Your task to perform on an android device: clear history in the chrome app Image 0: 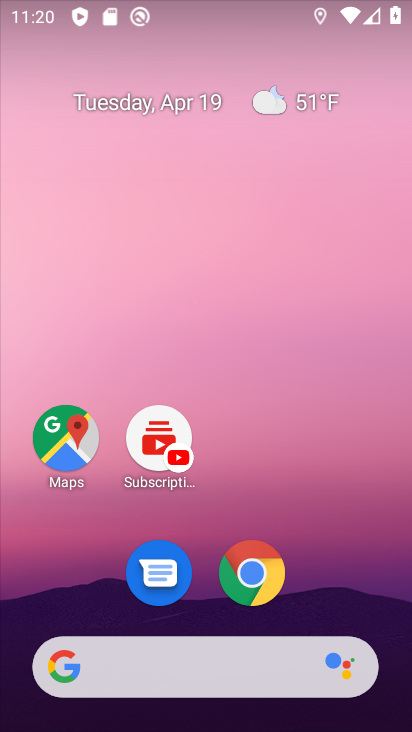
Step 0: click (252, 580)
Your task to perform on an android device: clear history in the chrome app Image 1: 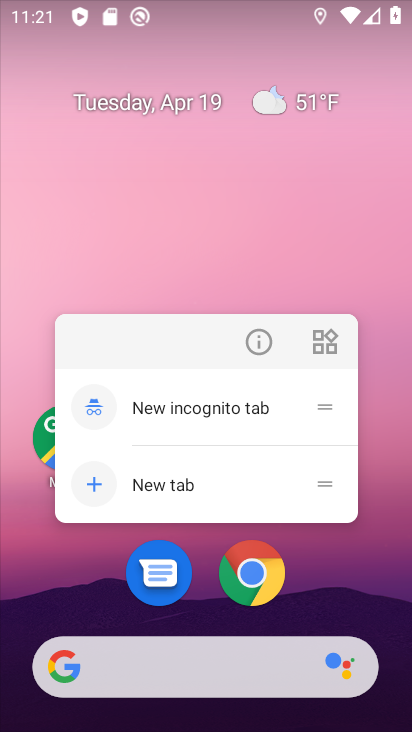
Step 1: click (252, 578)
Your task to perform on an android device: clear history in the chrome app Image 2: 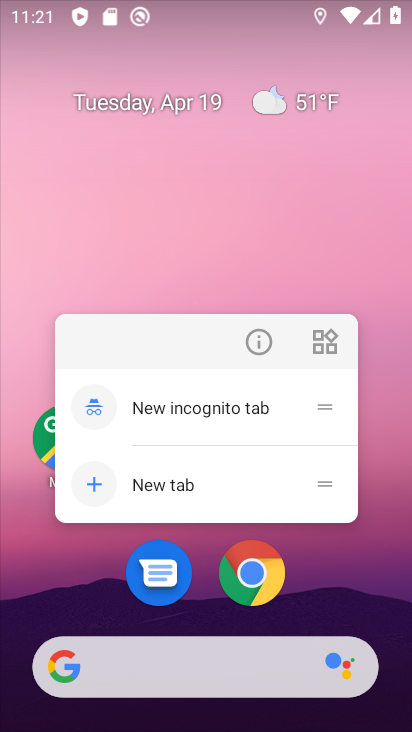
Step 2: click (252, 578)
Your task to perform on an android device: clear history in the chrome app Image 3: 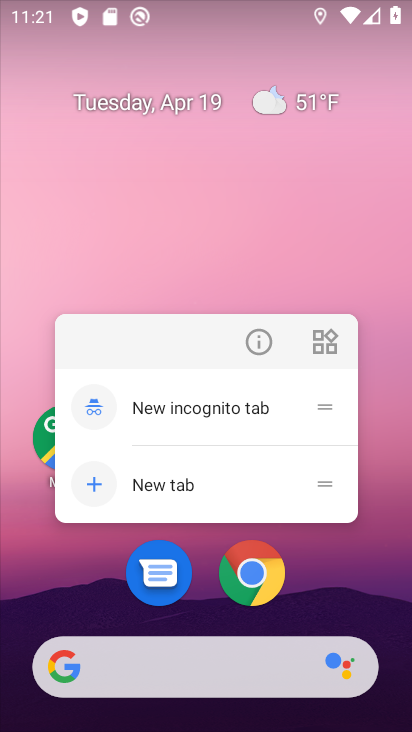
Step 3: click (252, 578)
Your task to perform on an android device: clear history in the chrome app Image 4: 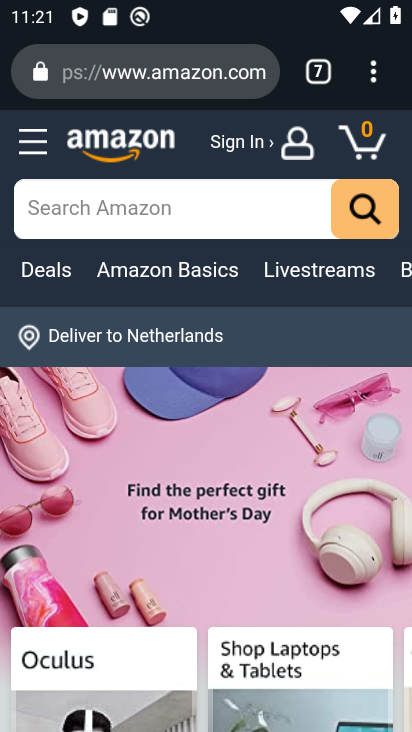
Step 4: drag from (377, 75) to (120, 501)
Your task to perform on an android device: clear history in the chrome app Image 5: 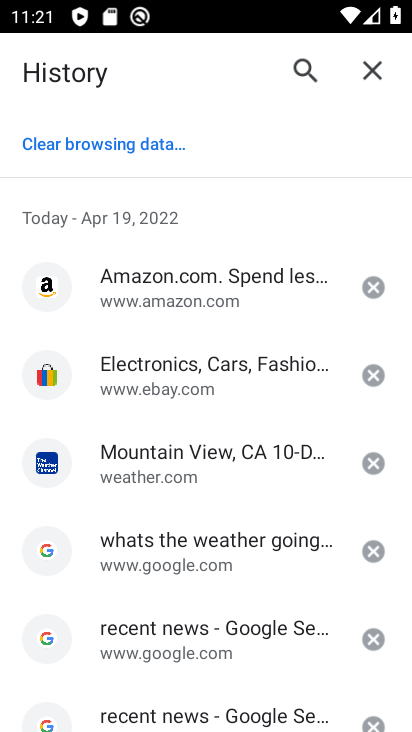
Step 5: click (79, 149)
Your task to perform on an android device: clear history in the chrome app Image 6: 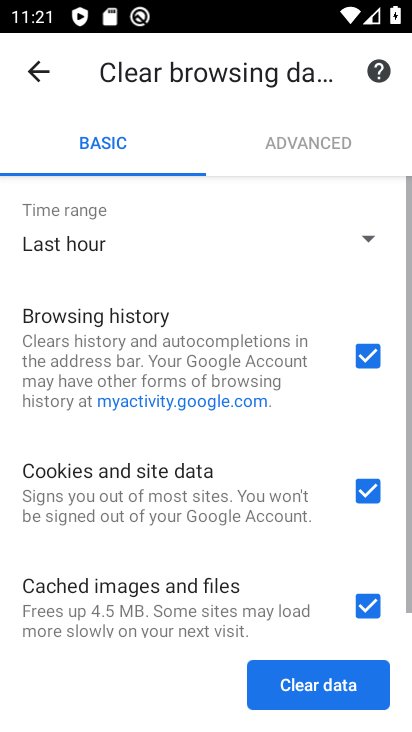
Step 6: click (300, 685)
Your task to perform on an android device: clear history in the chrome app Image 7: 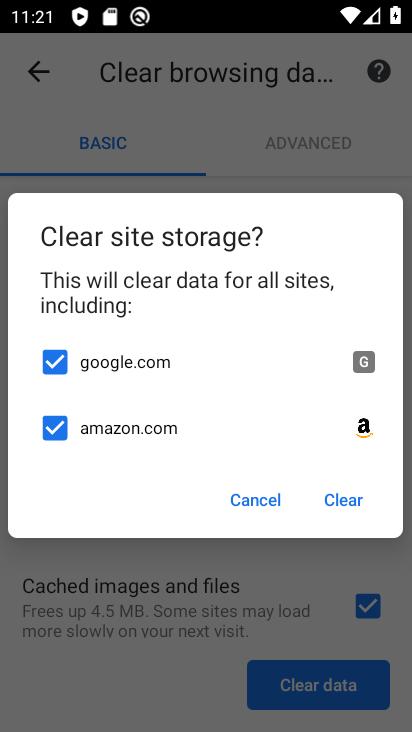
Step 7: click (340, 502)
Your task to perform on an android device: clear history in the chrome app Image 8: 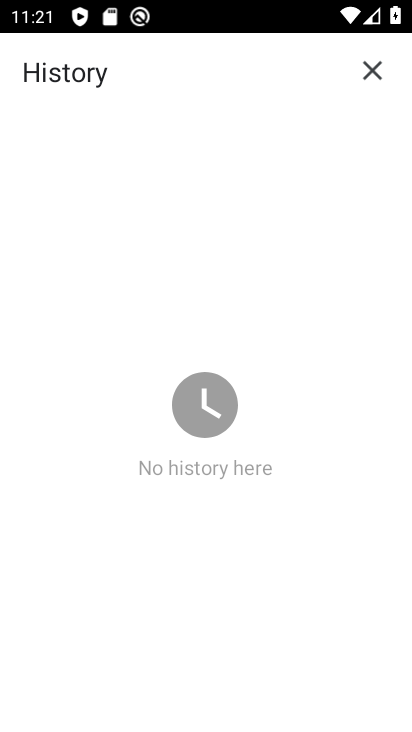
Step 8: task complete